Your task to perform on an android device: allow cookies in the chrome app Image 0: 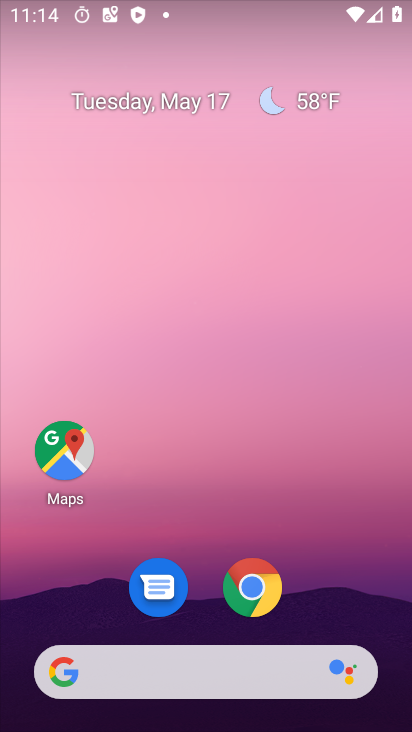
Step 0: click (252, 587)
Your task to perform on an android device: allow cookies in the chrome app Image 1: 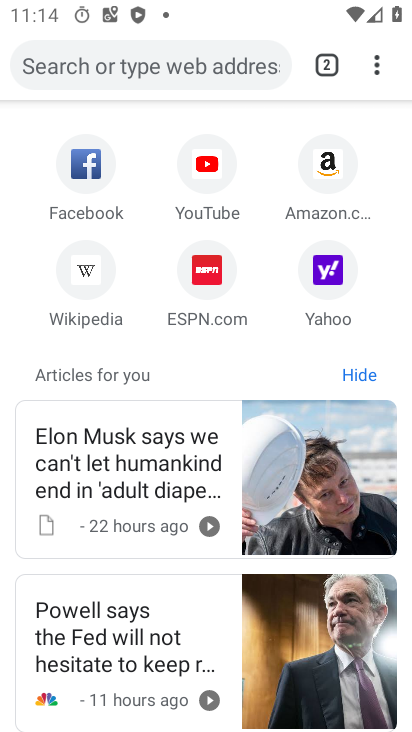
Step 1: click (380, 64)
Your task to perform on an android device: allow cookies in the chrome app Image 2: 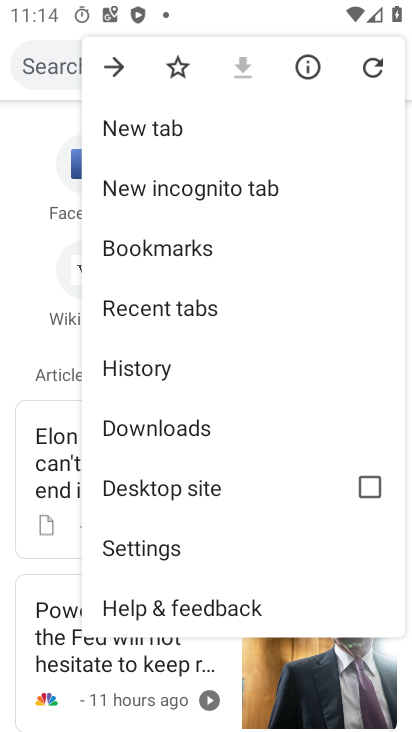
Step 2: click (133, 553)
Your task to perform on an android device: allow cookies in the chrome app Image 3: 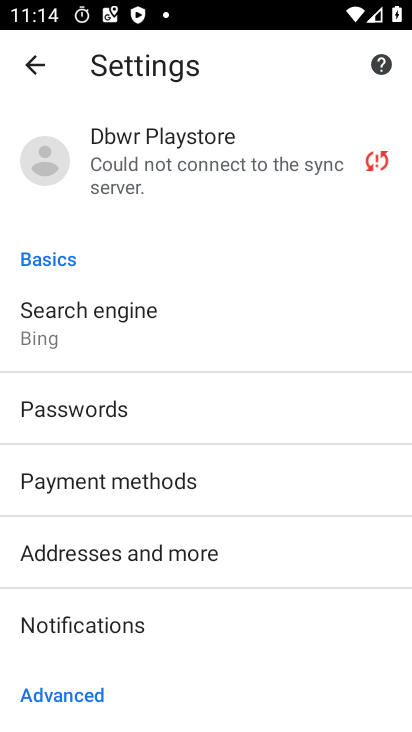
Step 3: drag from (150, 659) to (181, 535)
Your task to perform on an android device: allow cookies in the chrome app Image 4: 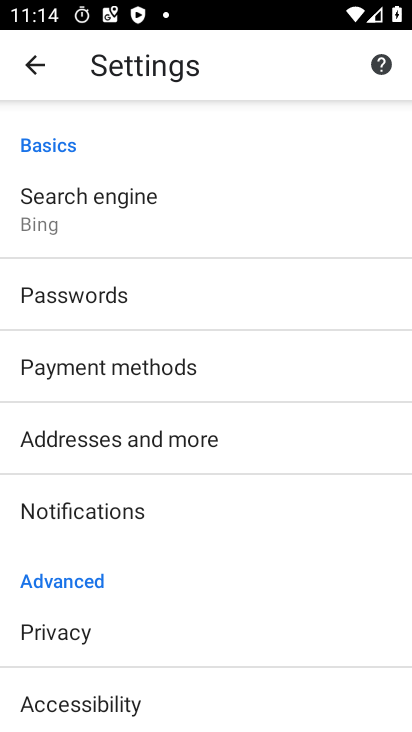
Step 4: drag from (151, 585) to (189, 500)
Your task to perform on an android device: allow cookies in the chrome app Image 5: 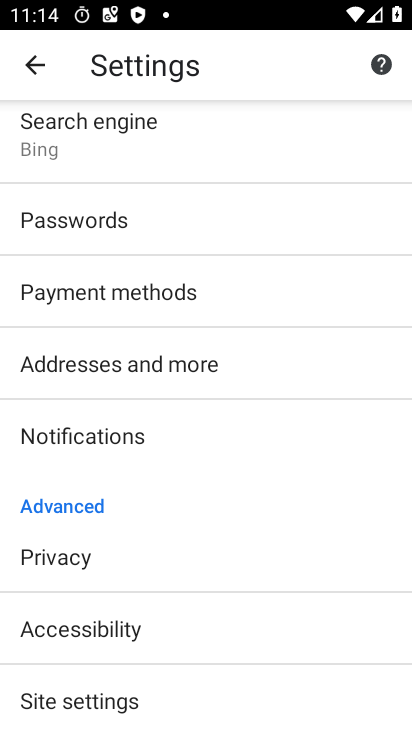
Step 5: drag from (173, 513) to (223, 444)
Your task to perform on an android device: allow cookies in the chrome app Image 6: 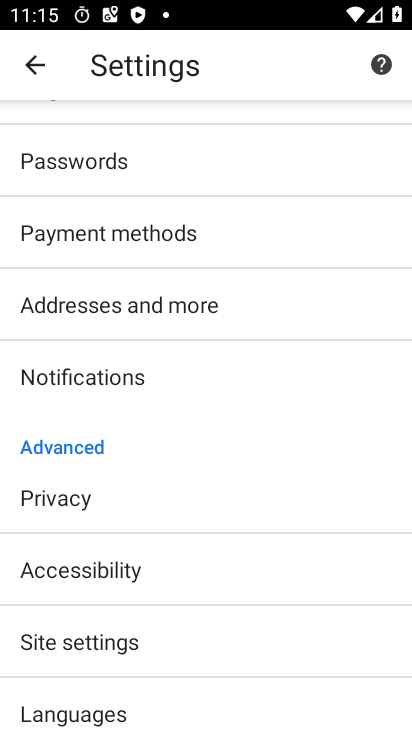
Step 6: click (71, 634)
Your task to perform on an android device: allow cookies in the chrome app Image 7: 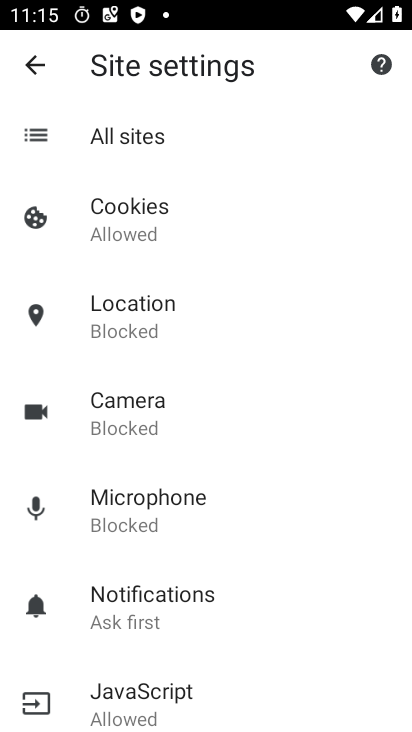
Step 7: click (136, 213)
Your task to perform on an android device: allow cookies in the chrome app Image 8: 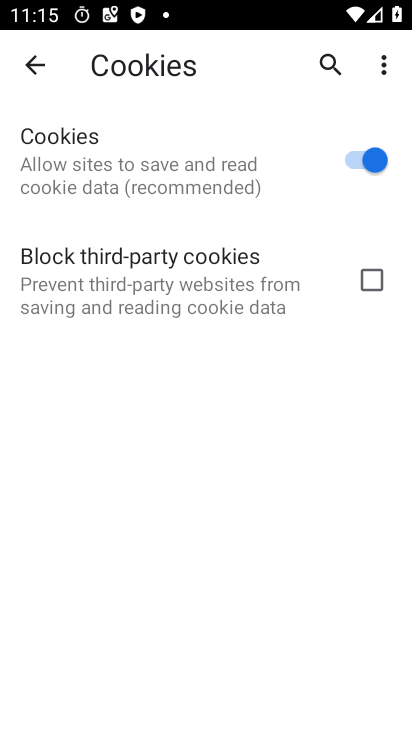
Step 8: click (366, 284)
Your task to perform on an android device: allow cookies in the chrome app Image 9: 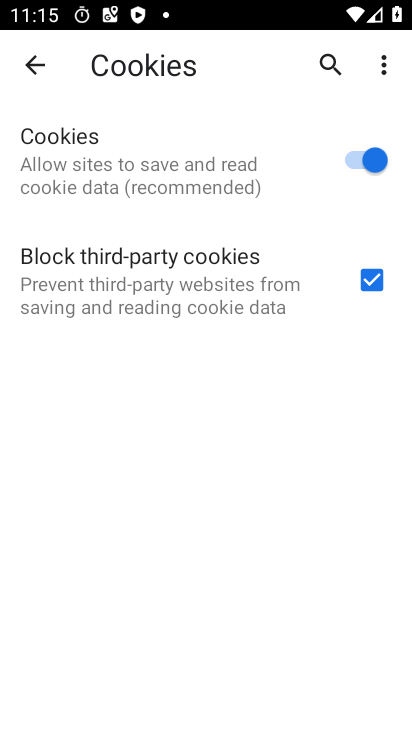
Step 9: task complete